Your task to perform on an android device: show emergency info Image 0: 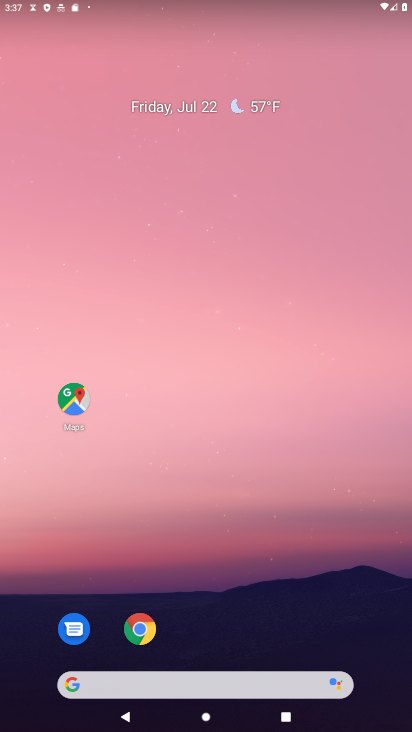
Step 0: drag from (150, 66) to (246, 50)
Your task to perform on an android device: show emergency info Image 1: 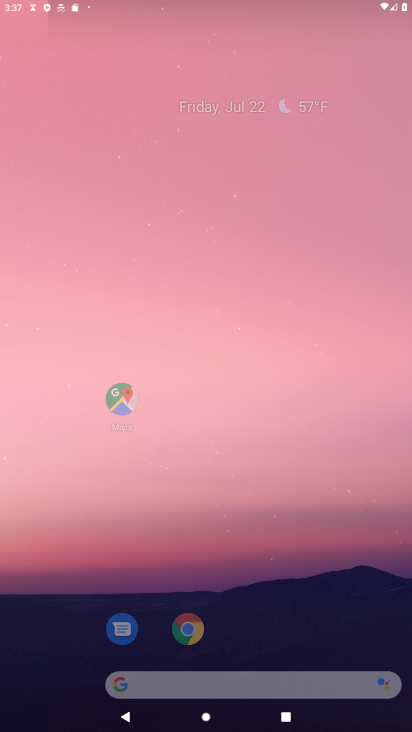
Step 1: click (229, 71)
Your task to perform on an android device: show emergency info Image 2: 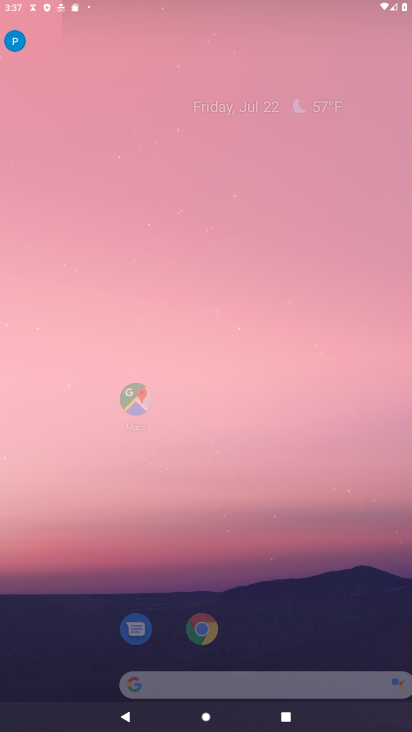
Step 2: drag from (224, 346) to (231, 28)
Your task to perform on an android device: show emergency info Image 3: 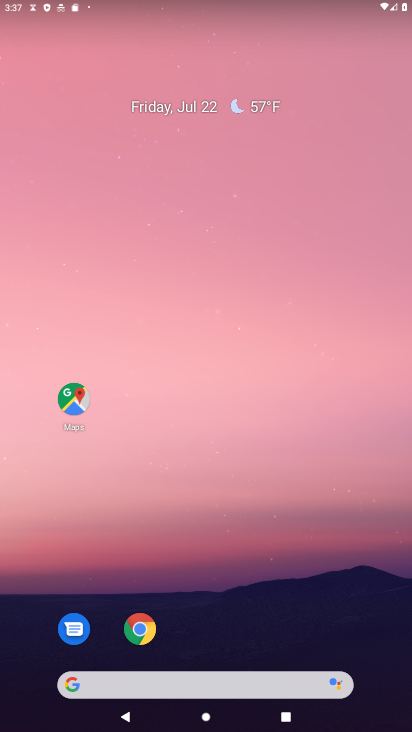
Step 3: drag from (312, 238) to (305, 33)
Your task to perform on an android device: show emergency info Image 4: 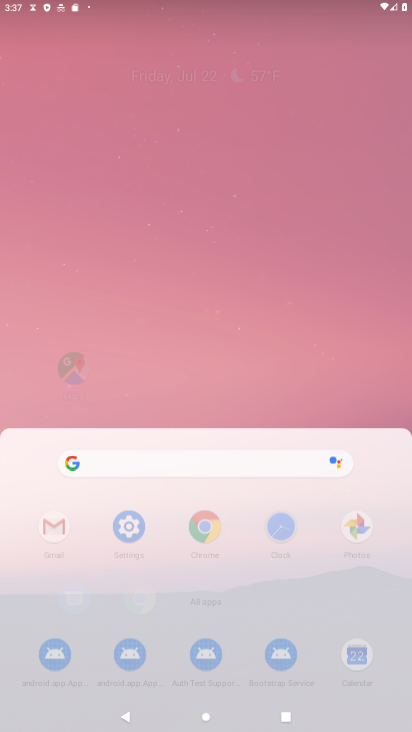
Step 4: drag from (279, 566) to (183, 74)
Your task to perform on an android device: show emergency info Image 5: 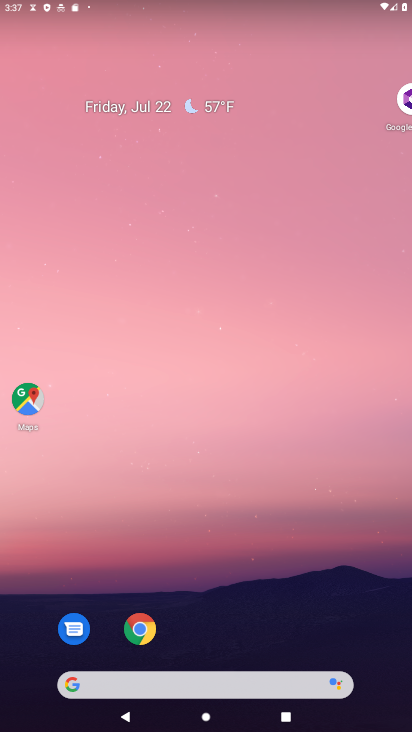
Step 5: drag from (154, 361) to (95, 33)
Your task to perform on an android device: show emergency info Image 6: 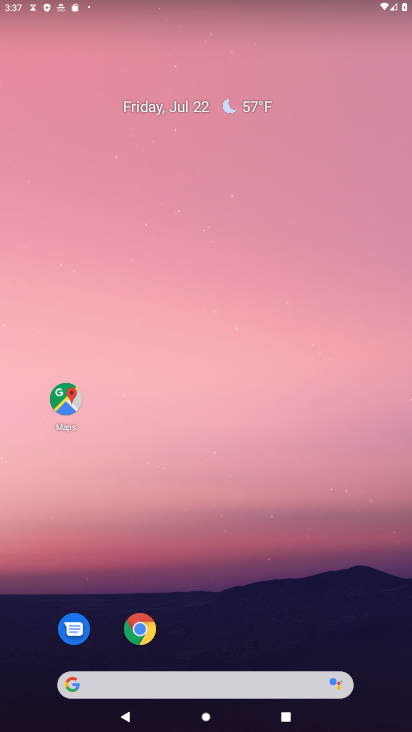
Step 6: drag from (207, 529) to (273, 104)
Your task to perform on an android device: show emergency info Image 7: 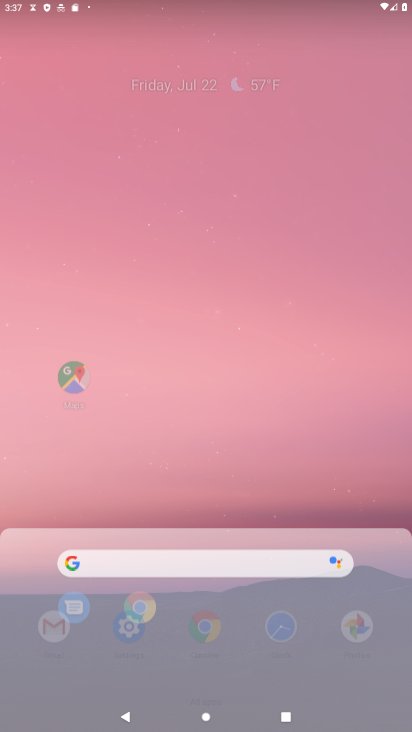
Step 7: drag from (186, 625) to (130, 91)
Your task to perform on an android device: show emergency info Image 8: 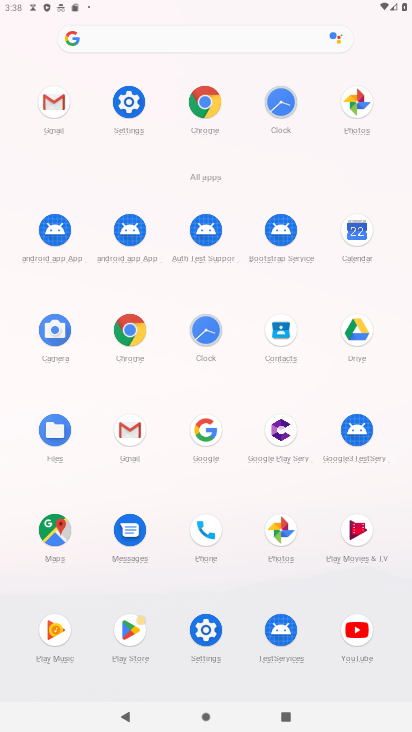
Step 8: click (120, 110)
Your task to perform on an android device: show emergency info Image 9: 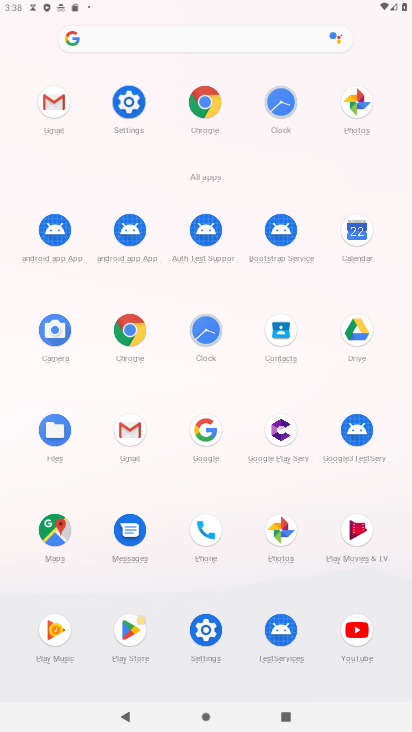
Step 9: click (122, 107)
Your task to perform on an android device: show emergency info Image 10: 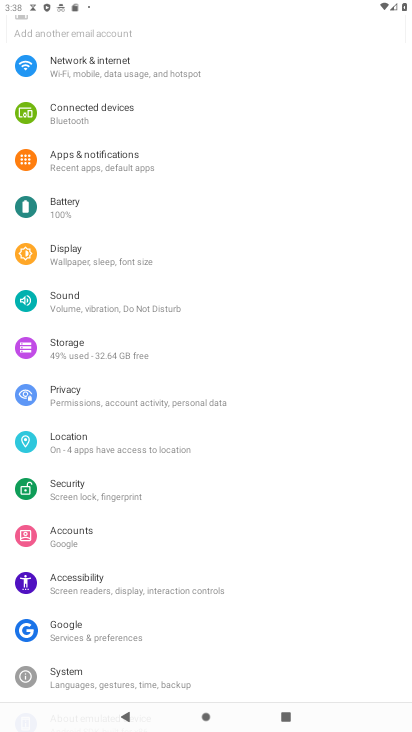
Step 10: click (125, 102)
Your task to perform on an android device: show emergency info Image 11: 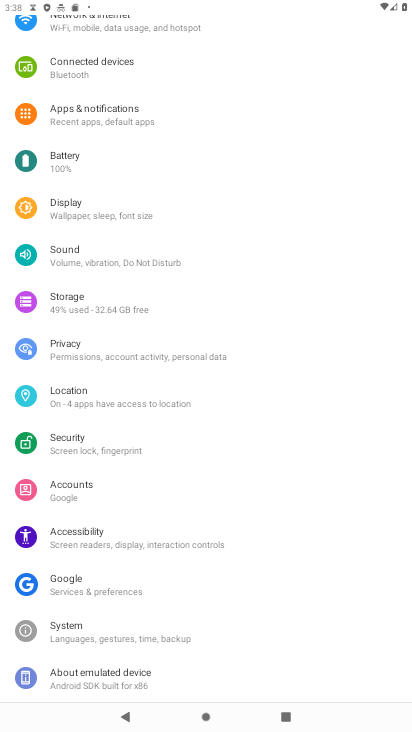
Step 11: click (125, 102)
Your task to perform on an android device: show emergency info Image 12: 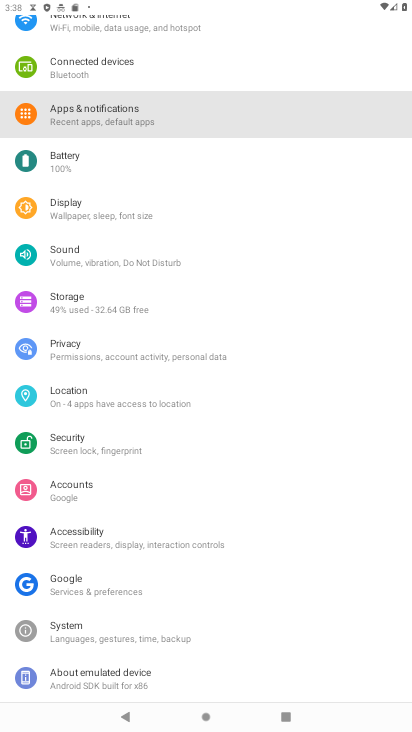
Step 12: drag from (105, 459) to (97, 150)
Your task to perform on an android device: show emergency info Image 13: 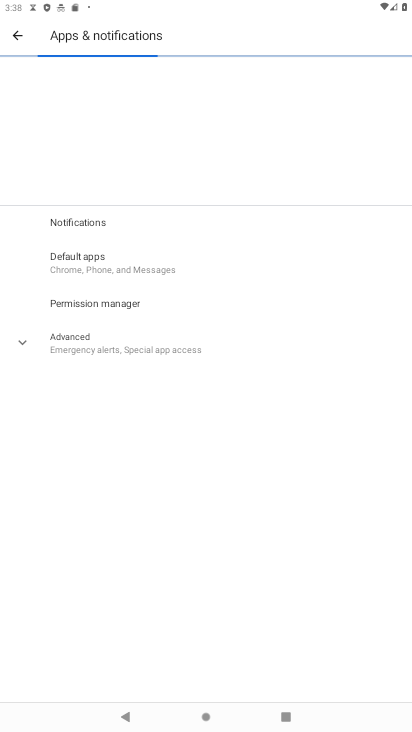
Step 13: drag from (106, 146) to (109, 46)
Your task to perform on an android device: show emergency info Image 14: 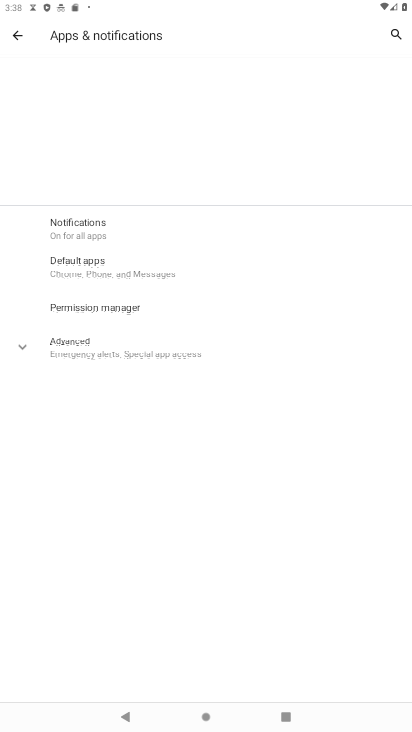
Step 14: drag from (113, 326) to (118, 120)
Your task to perform on an android device: show emergency info Image 15: 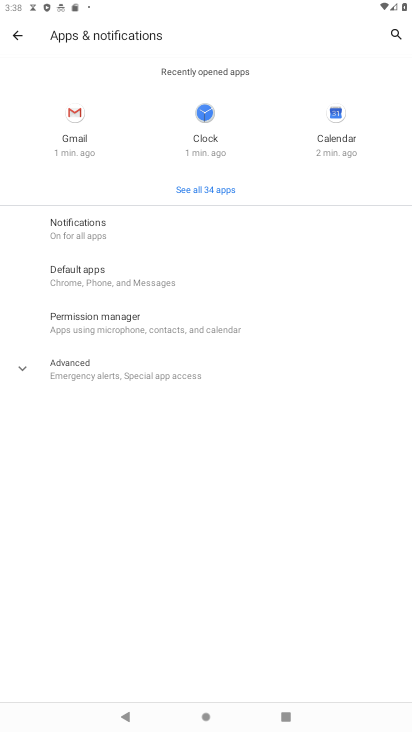
Step 15: click (17, 44)
Your task to perform on an android device: show emergency info Image 16: 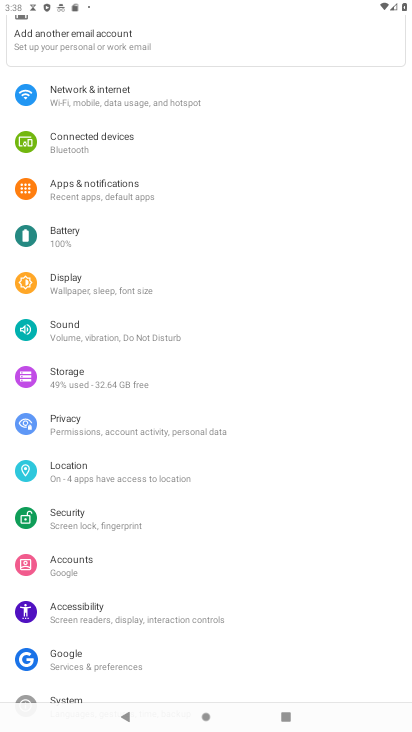
Step 16: drag from (97, 462) to (74, 43)
Your task to perform on an android device: show emergency info Image 17: 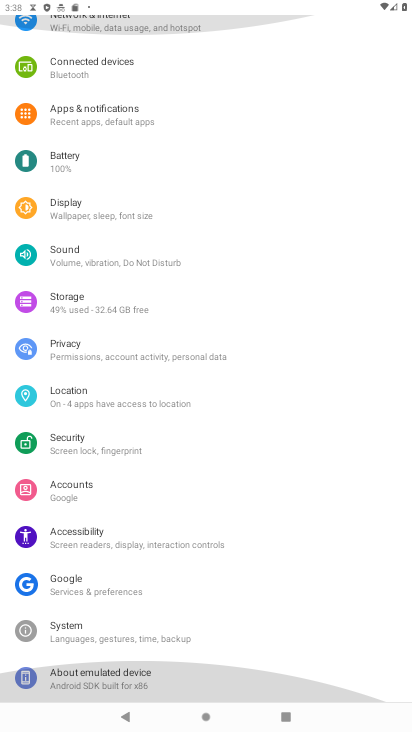
Step 17: drag from (139, 382) to (67, 73)
Your task to perform on an android device: show emergency info Image 18: 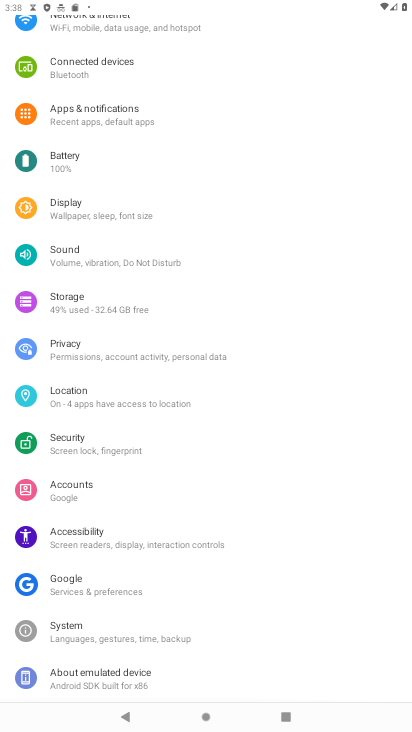
Step 18: drag from (174, 420) to (187, 192)
Your task to perform on an android device: show emergency info Image 19: 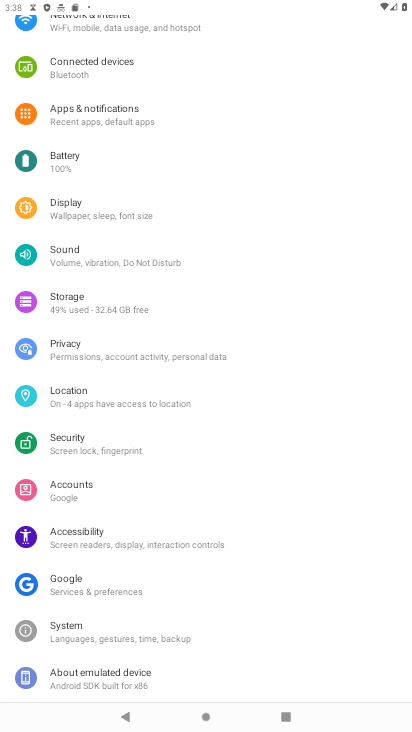
Step 19: click (102, 680)
Your task to perform on an android device: show emergency info Image 20: 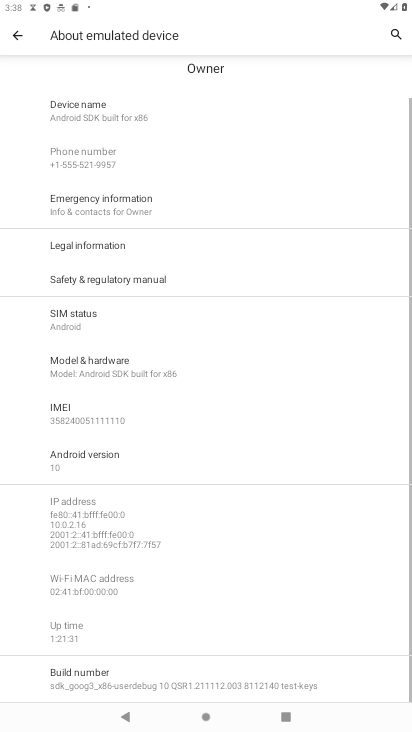
Step 20: click (70, 690)
Your task to perform on an android device: show emergency info Image 21: 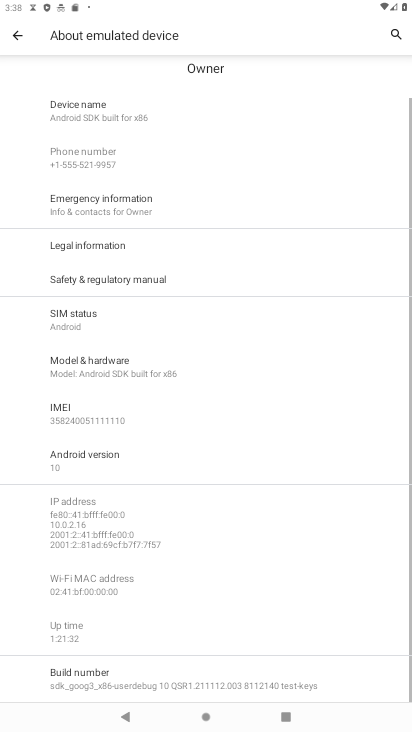
Step 21: click (70, 690)
Your task to perform on an android device: show emergency info Image 22: 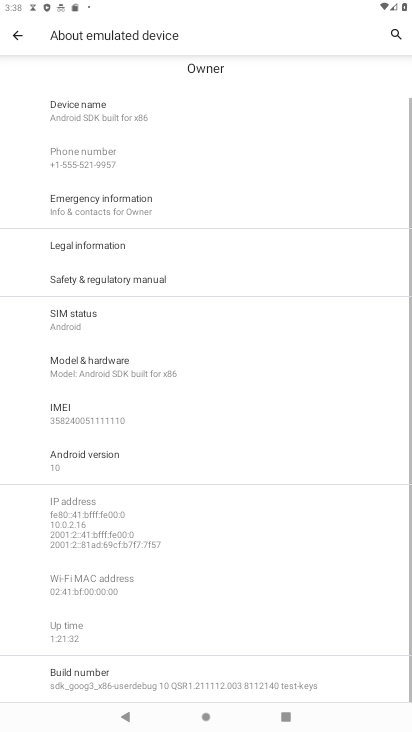
Step 22: click (70, 690)
Your task to perform on an android device: show emergency info Image 23: 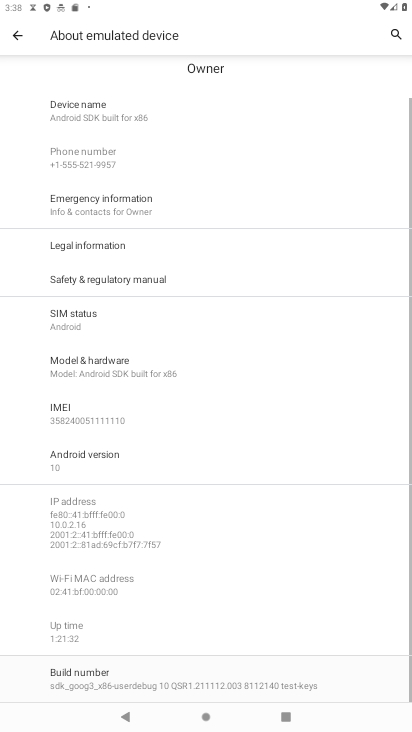
Step 23: click (74, 686)
Your task to perform on an android device: show emergency info Image 24: 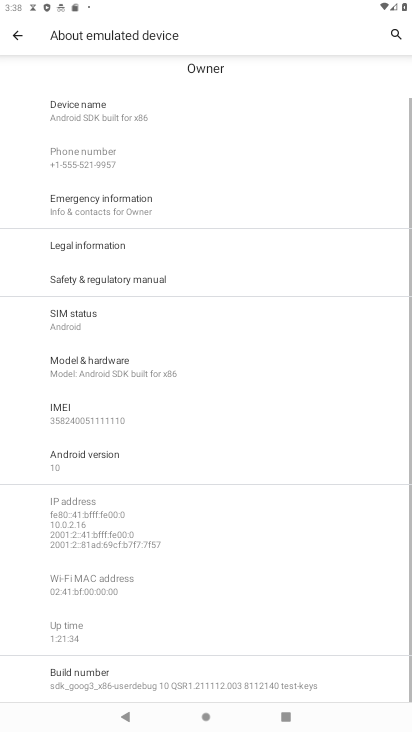
Step 24: task complete